Your task to perform on an android device: Open location settings Image 0: 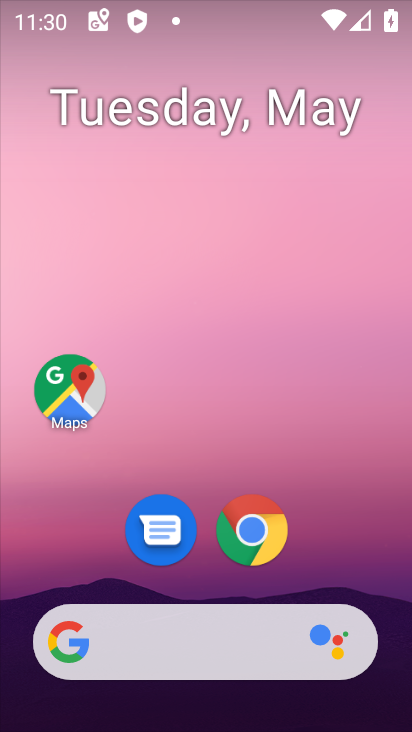
Step 0: task complete